Your task to perform on an android device: turn off improve location accuracy Image 0: 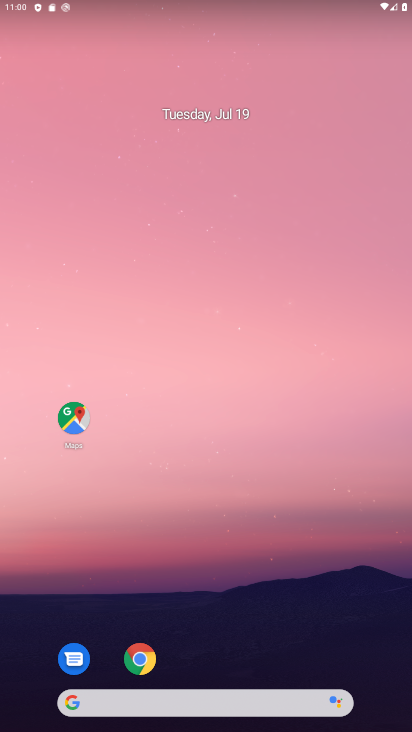
Step 0: drag from (311, 595) to (240, 230)
Your task to perform on an android device: turn off improve location accuracy Image 1: 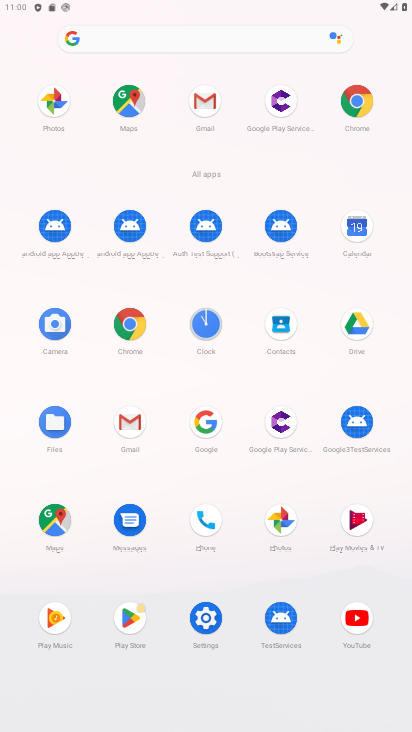
Step 1: click (206, 629)
Your task to perform on an android device: turn off improve location accuracy Image 2: 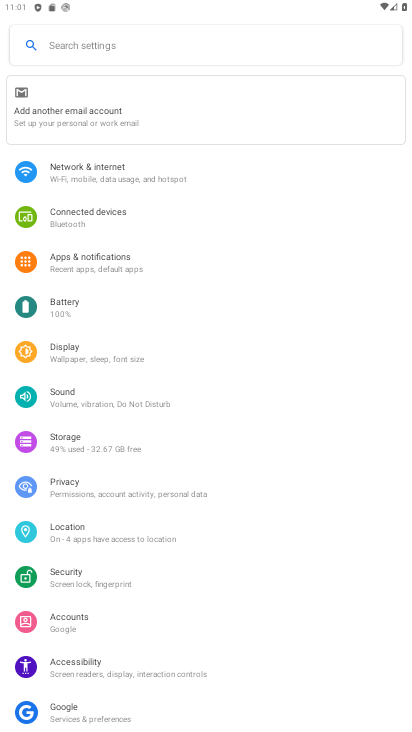
Step 2: click (80, 536)
Your task to perform on an android device: turn off improve location accuracy Image 3: 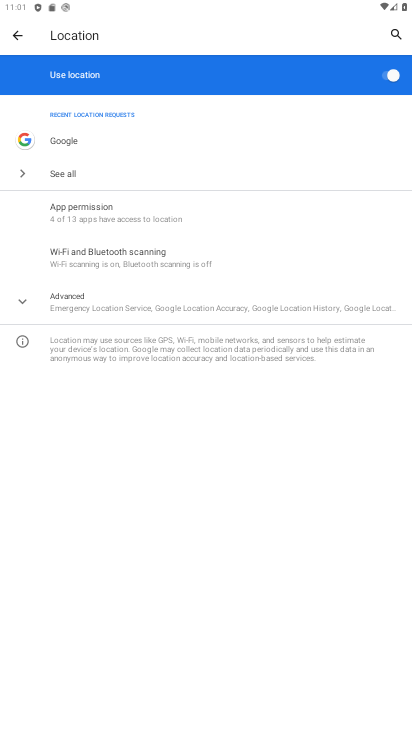
Step 3: click (133, 295)
Your task to perform on an android device: turn off improve location accuracy Image 4: 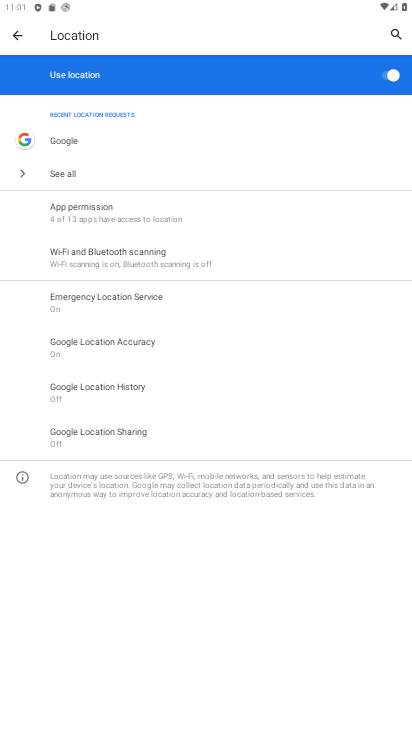
Step 4: click (124, 344)
Your task to perform on an android device: turn off improve location accuracy Image 5: 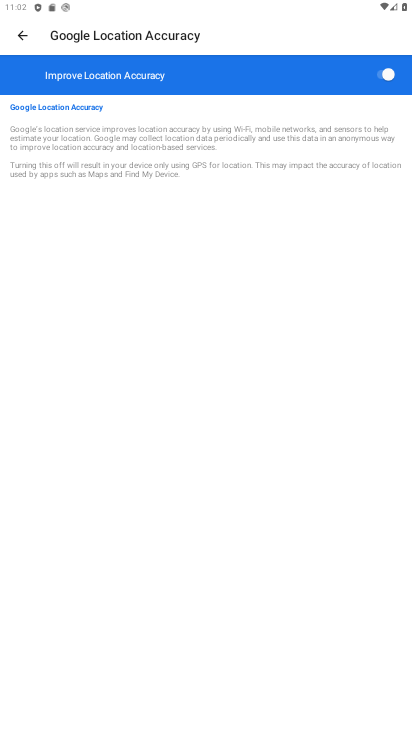
Step 5: click (390, 73)
Your task to perform on an android device: turn off improve location accuracy Image 6: 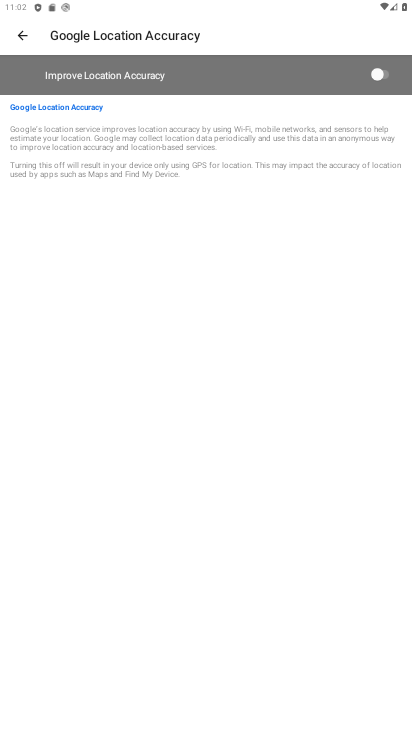
Step 6: task complete